Your task to perform on an android device: open app "Instagram" (install if not already installed) Image 0: 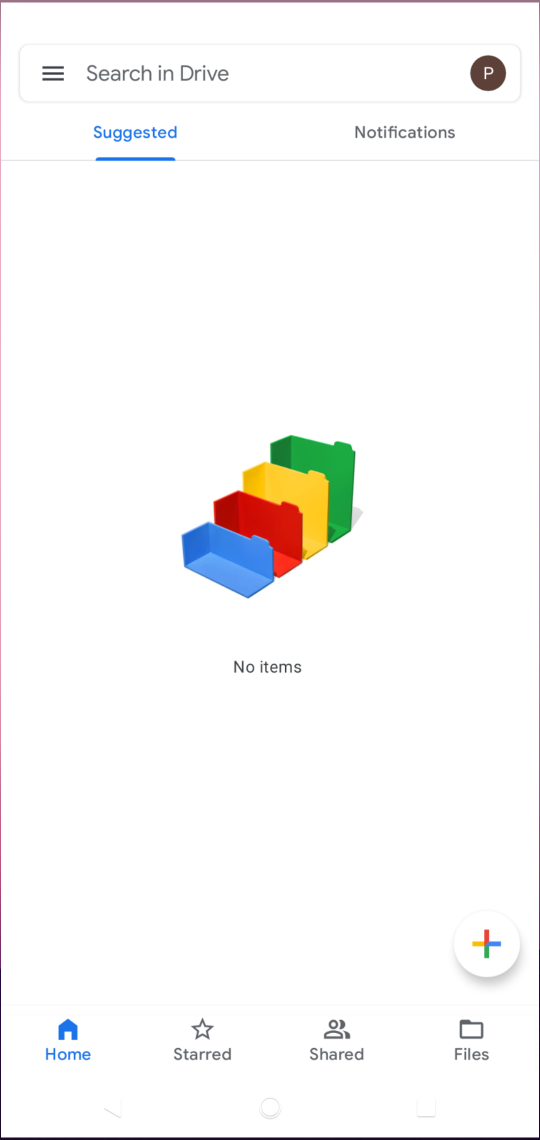
Step 0: press home button
Your task to perform on an android device: open app "Instagram" (install if not already installed) Image 1: 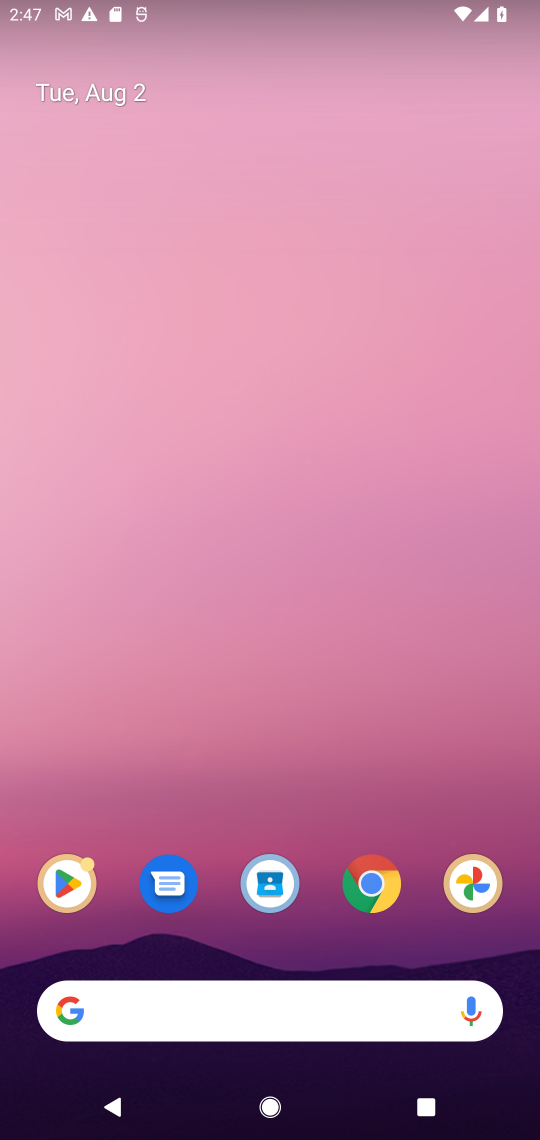
Step 1: click (85, 891)
Your task to perform on an android device: open app "Instagram" (install if not already installed) Image 2: 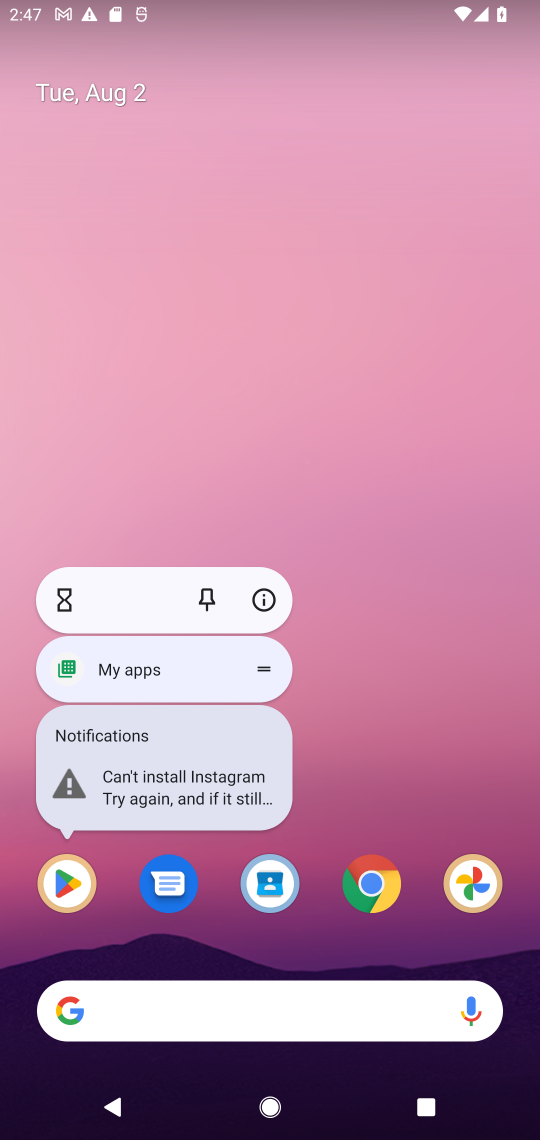
Step 2: click (85, 891)
Your task to perform on an android device: open app "Instagram" (install if not already installed) Image 3: 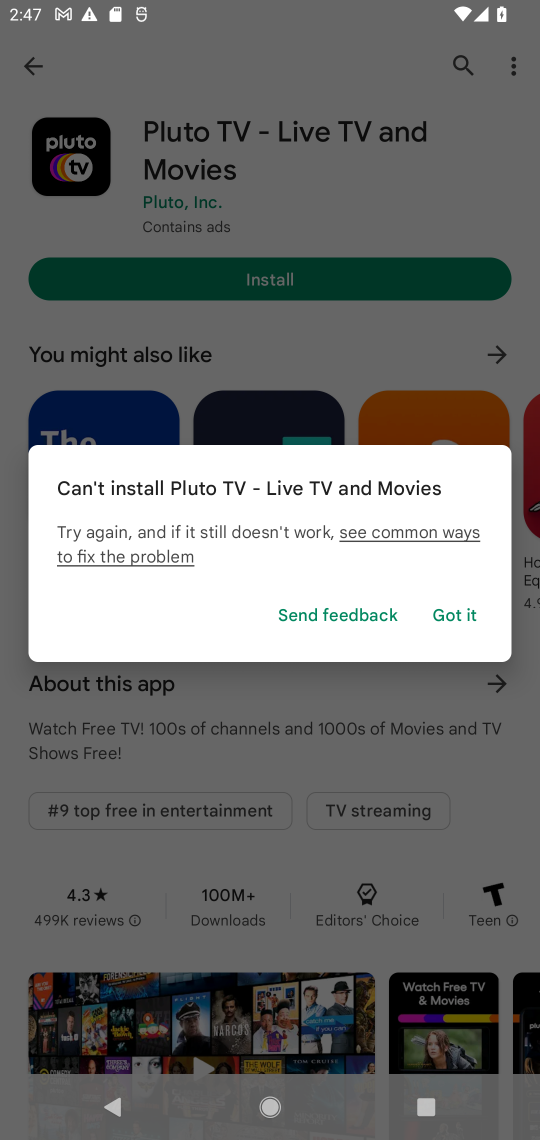
Step 3: click (461, 77)
Your task to perform on an android device: open app "Instagram" (install if not already installed) Image 4: 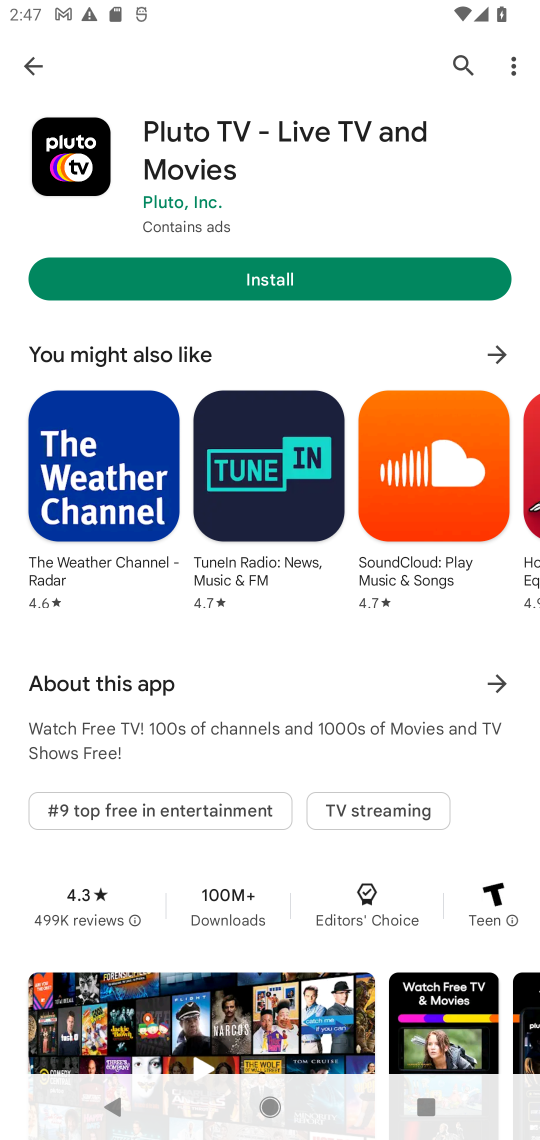
Step 4: click (461, 77)
Your task to perform on an android device: open app "Instagram" (install if not already installed) Image 5: 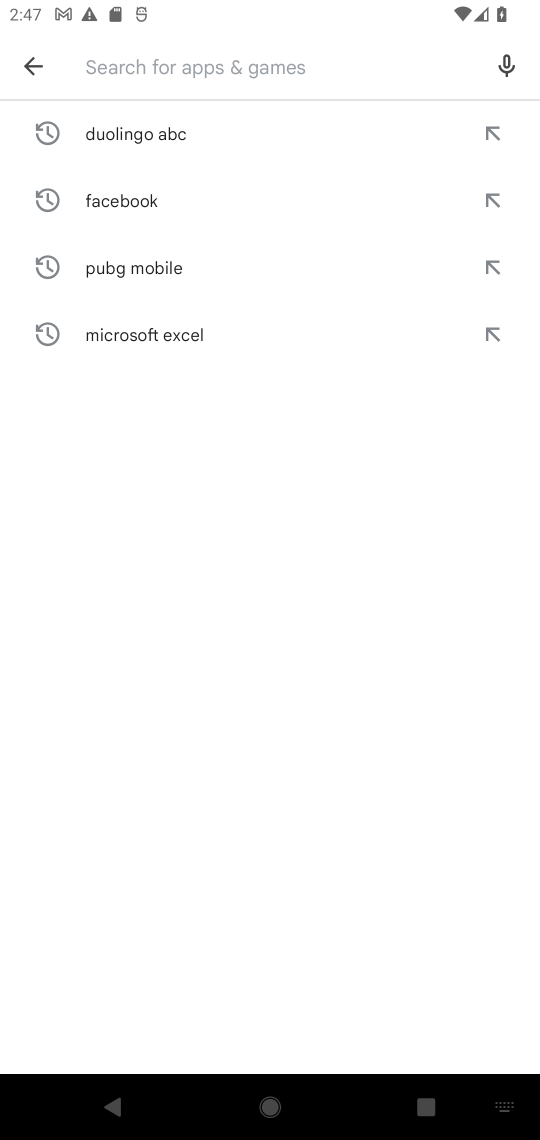
Step 5: type "Instagram"
Your task to perform on an android device: open app "Instagram" (install if not already installed) Image 6: 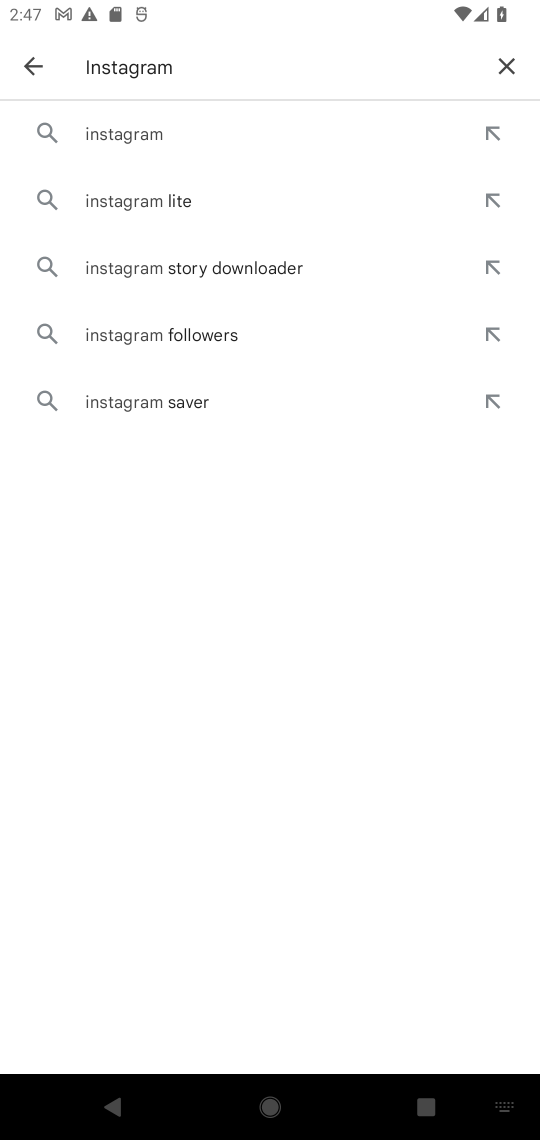
Step 6: click (136, 143)
Your task to perform on an android device: open app "Instagram" (install if not already installed) Image 7: 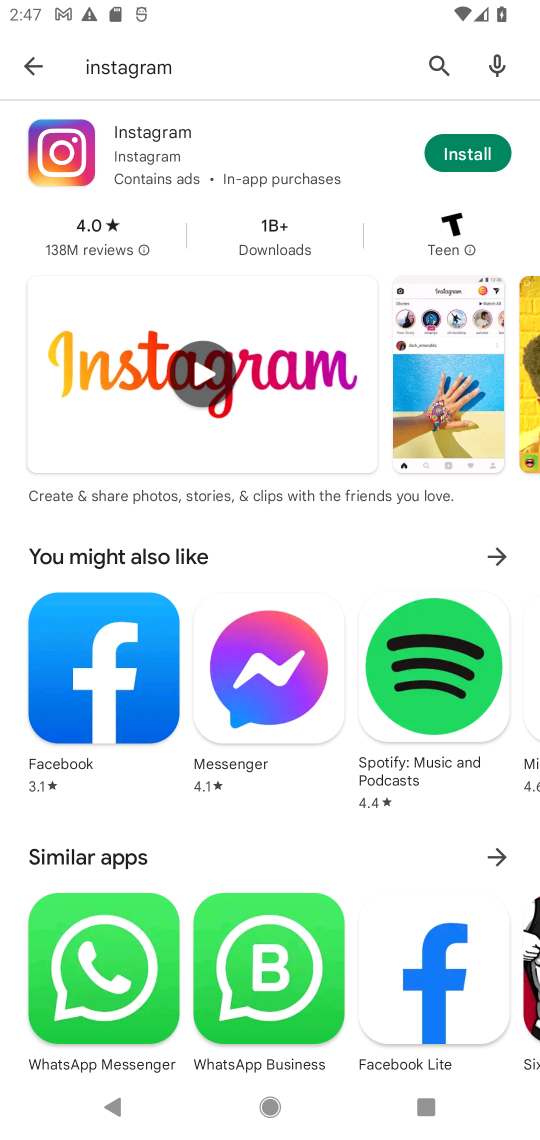
Step 7: click (436, 167)
Your task to perform on an android device: open app "Instagram" (install if not already installed) Image 8: 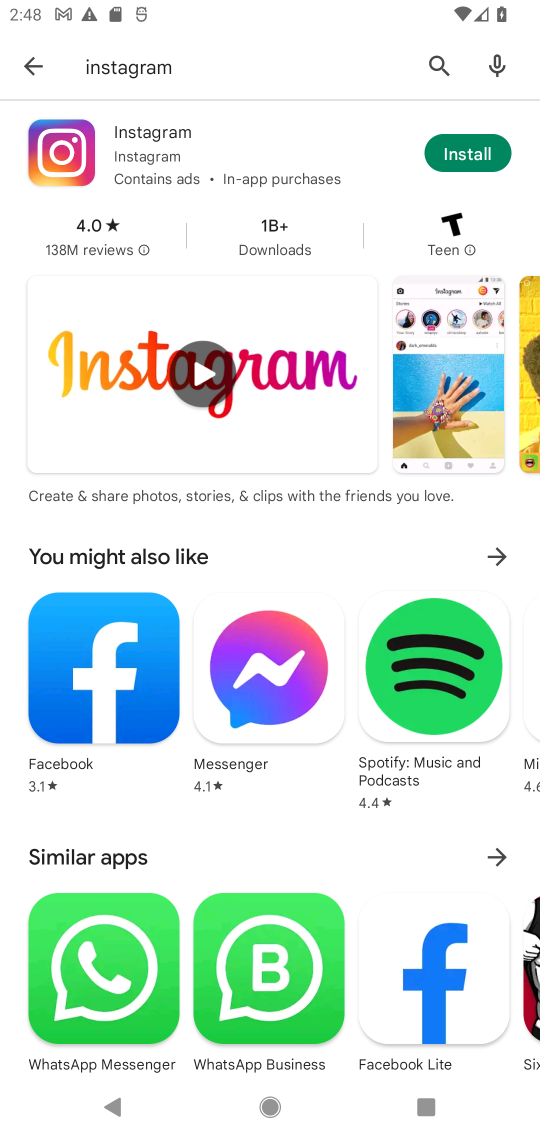
Step 8: click (453, 167)
Your task to perform on an android device: open app "Instagram" (install if not already installed) Image 9: 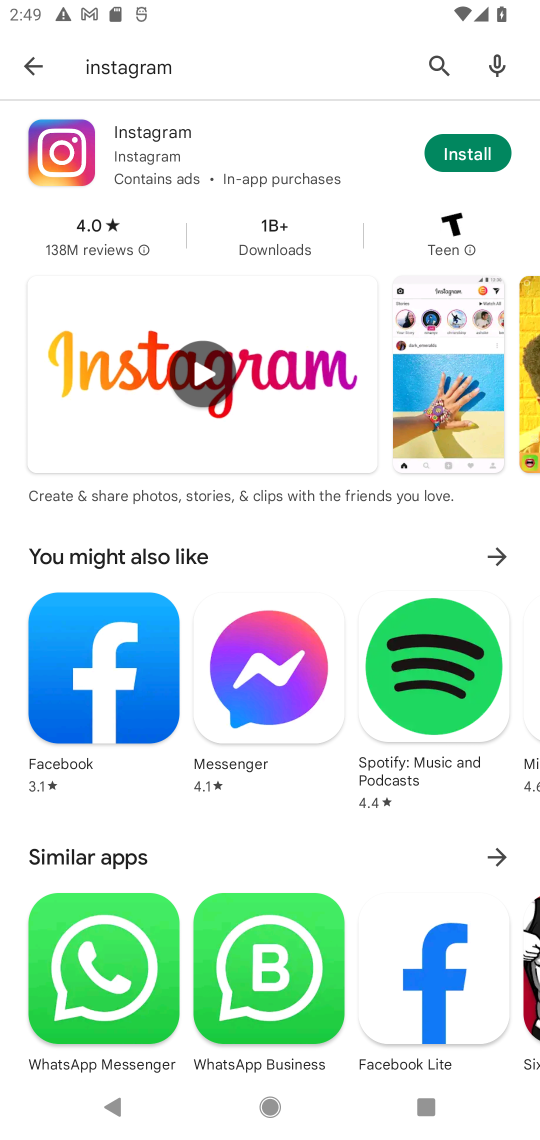
Step 9: task complete